Your task to perform on an android device: Toggle the flashlight Image 0: 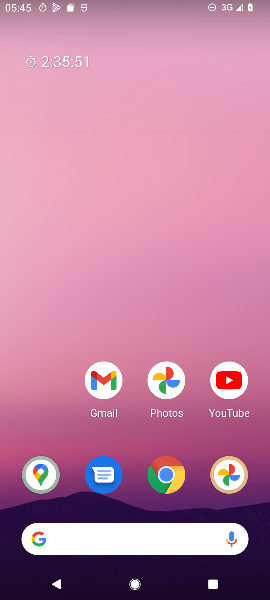
Step 0: drag from (136, 3) to (144, 298)
Your task to perform on an android device: Toggle the flashlight Image 1: 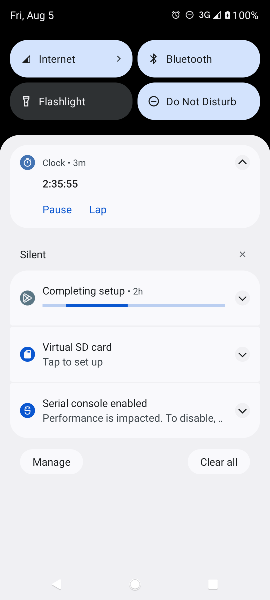
Step 1: drag from (132, 30) to (148, 309)
Your task to perform on an android device: Toggle the flashlight Image 2: 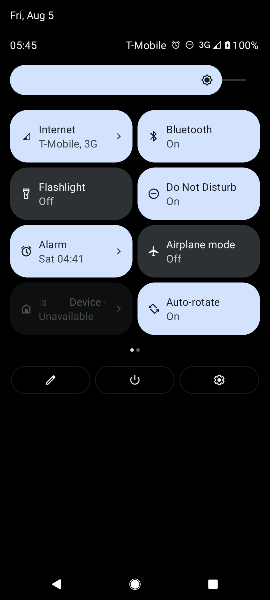
Step 2: click (39, 214)
Your task to perform on an android device: Toggle the flashlight Image 3: 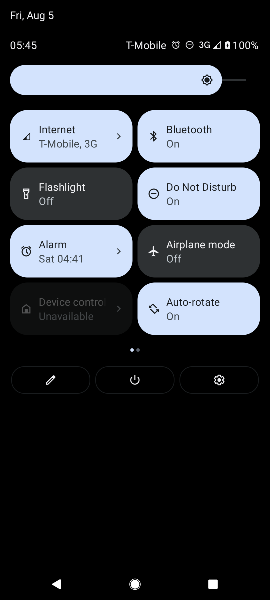
Step 3: task complete